Your task to perform on an android device: uninstall "Microsoft Authenticator" Image 0: 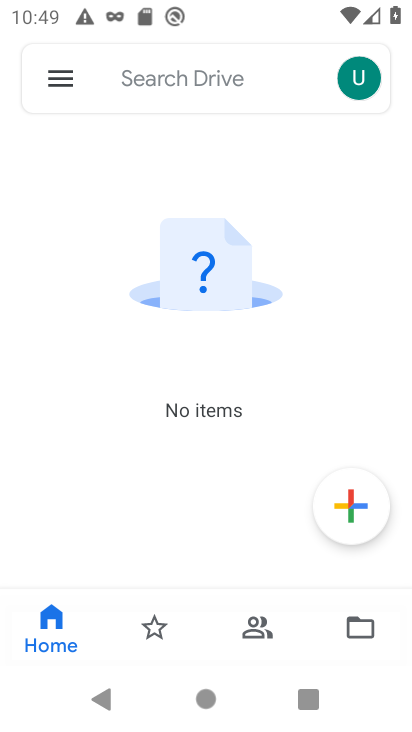
Step 0: press home button
Your task to perform on an android device: uninstall "Microsoft Authenticator" Image 1: 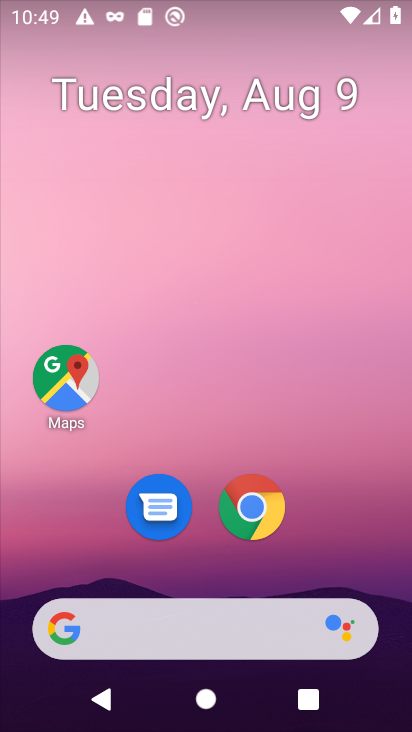
Step 1: drag from (186, 636) to (210, 103)
Your task to perform on an android device: uninstall "Microsoft Authenticator" Image 2: 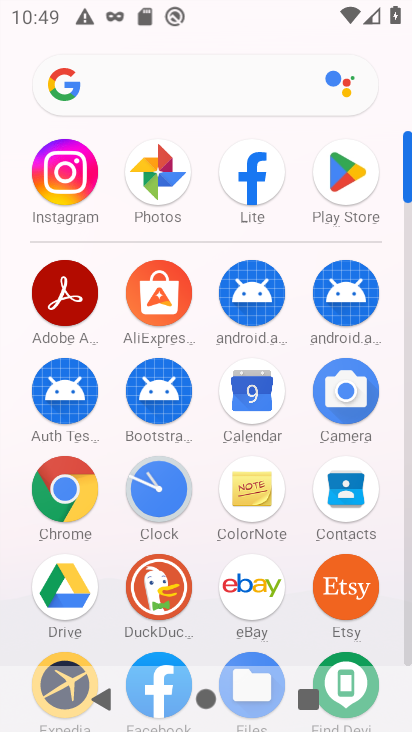
Step 2: click (354, 171)
Your task to perform on an android device: uninstall "Microsoft Authenticator" Image 3: 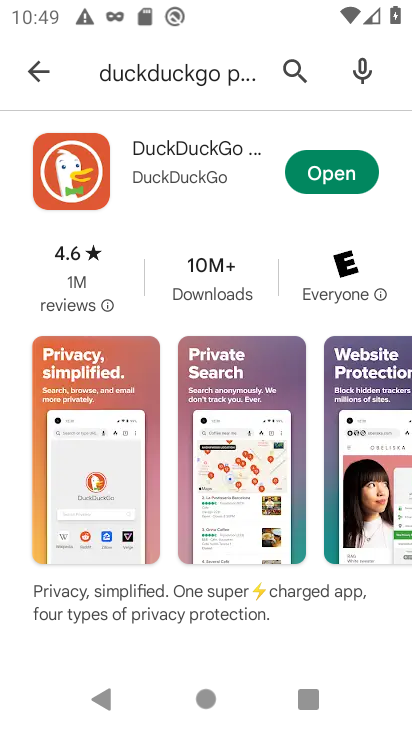
Step 3: click (271, 72)
Your task to perform on an android device: uninstall "Microsoft Authenticator" Image 4: 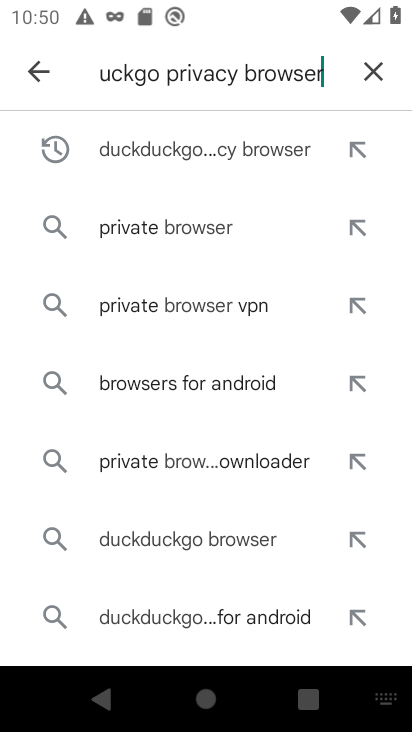
Step 4: click (372, 70)
Your task to perform on an android device: uninstall "Microsoft Authenticator" Image 5: 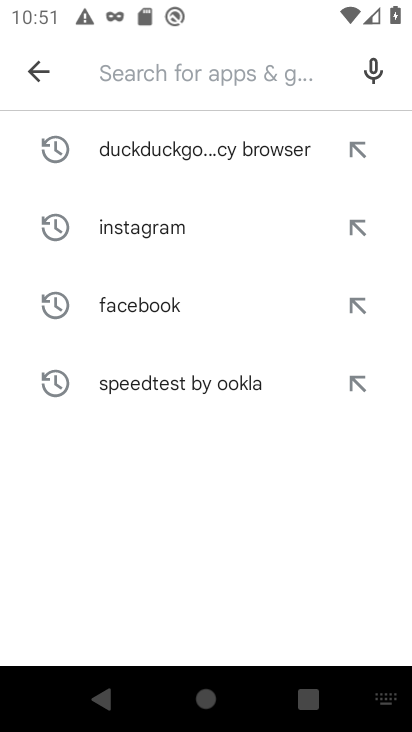
Step 5: type "Microsoft Authenticator"
Your task to perform on an android device: uninstall "Microsoft Authenticator" Image 6: 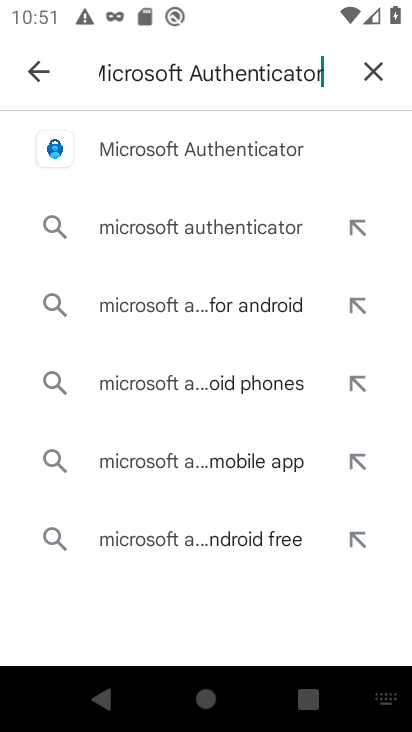
Step 6: click (186, 155)
Your task to perform on an android device: uninstall "Microsoft Authenticator" Image 7: 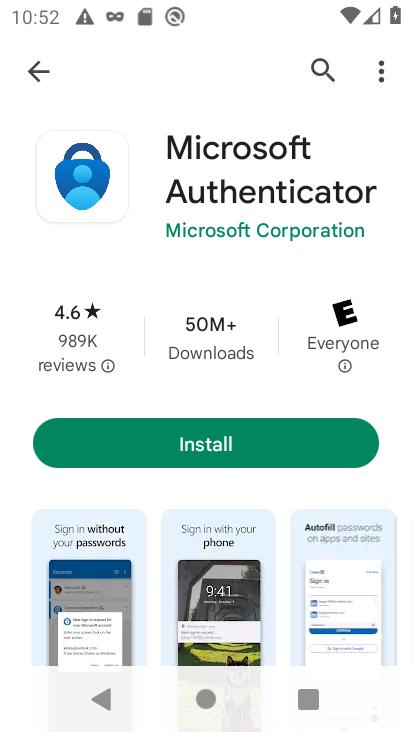
Step 7: task complete